Your task to perform on an android device: Go to accessibility settings Image 0: 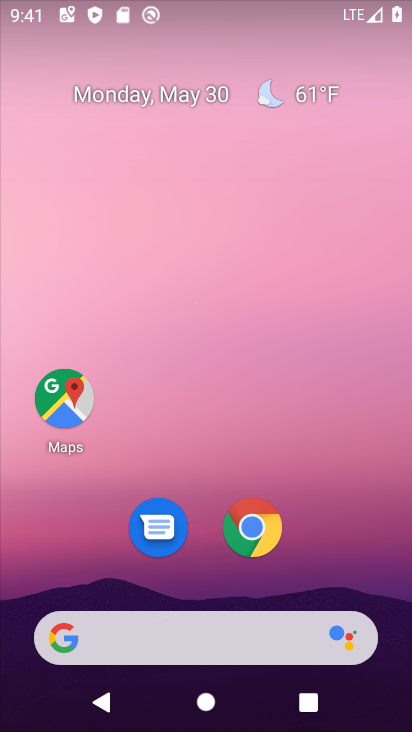
Step 0: drag from (316, 543) to (336, 65)
Your task to perform on an android device: Go to accessibility settings Image 1: 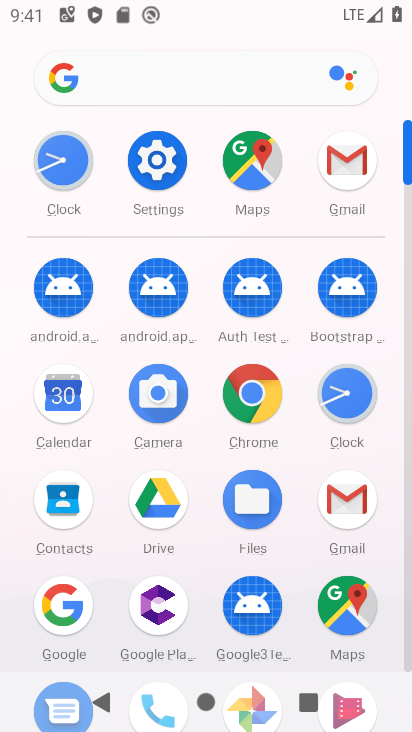
Step 1: click (166, 174)
Your task to perform on an android device: Go to accessibility settings Image 2: 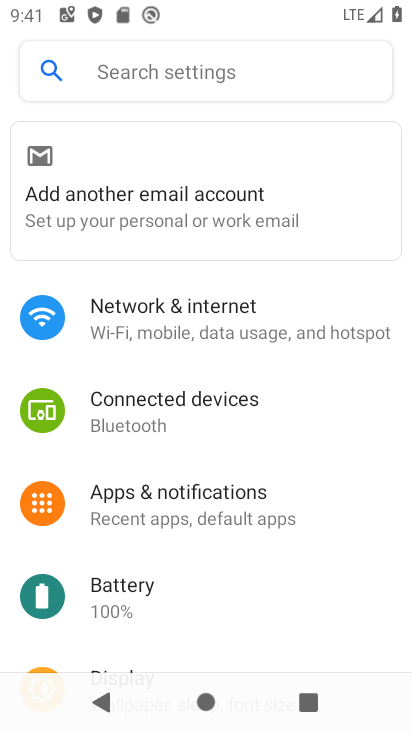
Step 2: drag from (176, 599) to (191, 203)
Your task to perform on an android device: Go to accessibility settings Image 3: 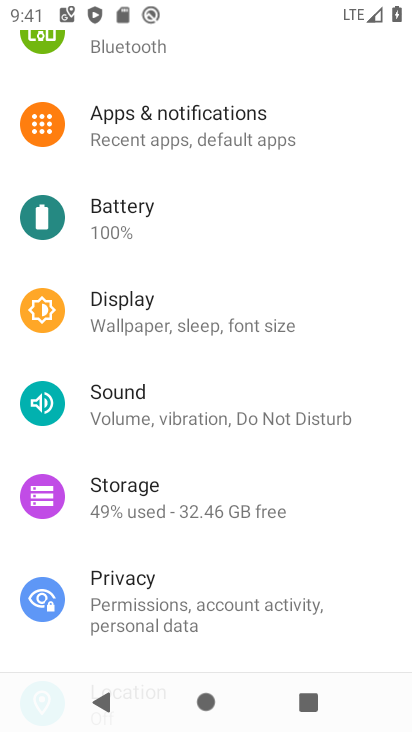
Step 3: drag from (161, 607) to (165, 231)
Your task to perform on an android device: Go to accessibility settings Image 4: 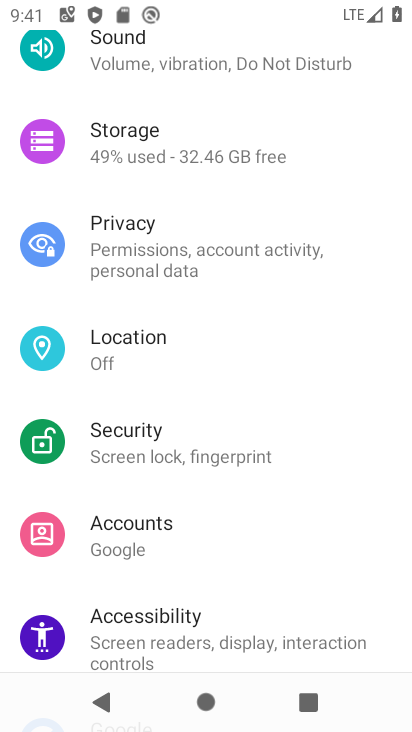
Step 4: click (109, 646)
Your task to perform on an android device: Go to accessibility settings Image 5: 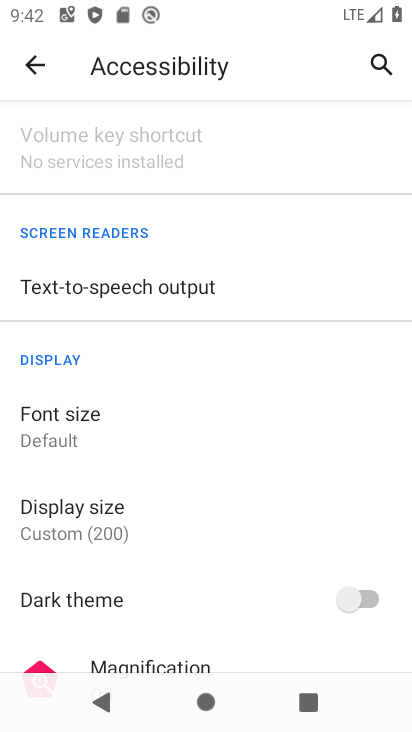
Step 5: task complete